Your task to perform on an android device: turn off translation in the chrome app Image 0: 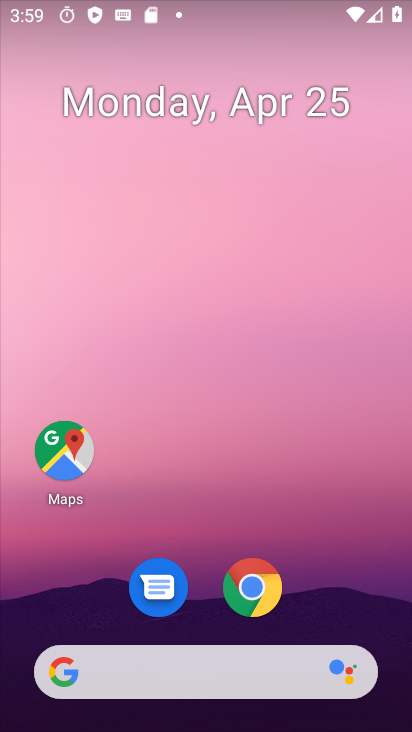
Step 0: drag from (370, 582) to (306, 150)
Your task to perform on an android device: turn off translation in the chrome app Image 1: 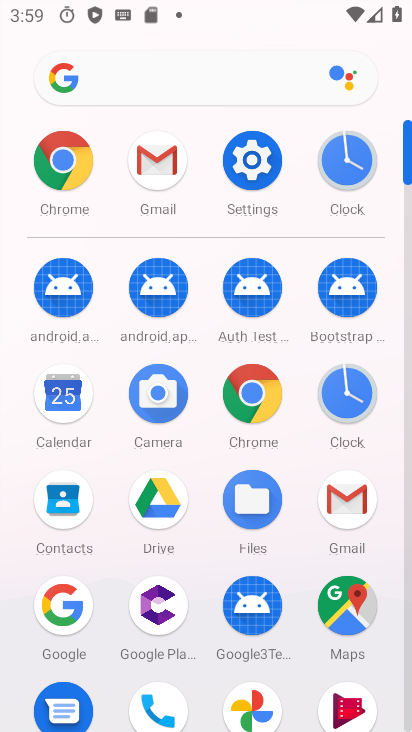
Step 1: click (262, 393)
Your task to perform on an android device: turn off translation in the chrome app Image 2: 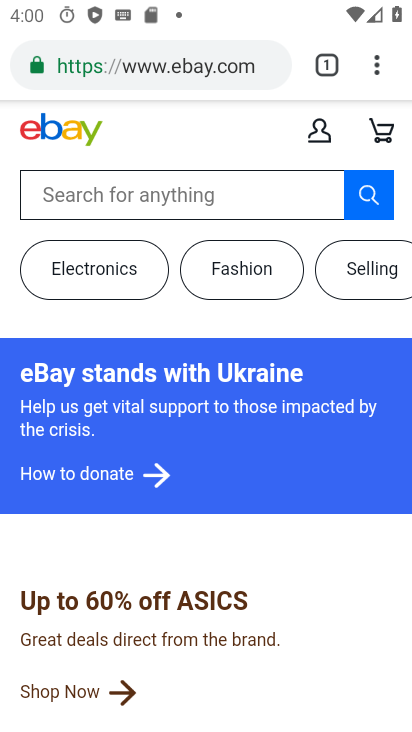
Step 2: press home button
Your task to perform on an android device: turn off translation in the chrome app Image 3: 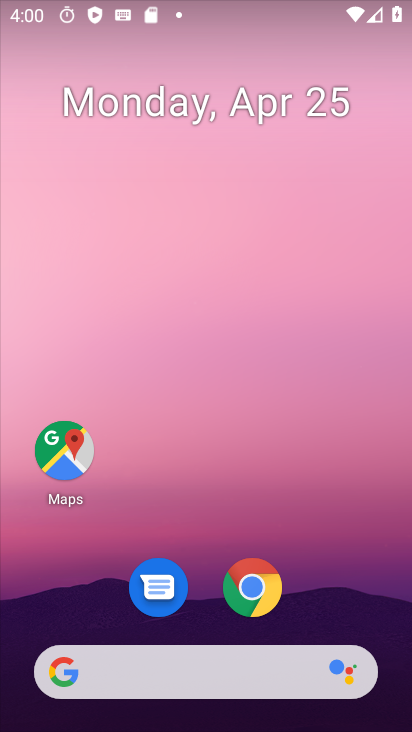
Step 3: drag from (366, 592) to (326, 192)
Your task to perform on an android device: turn off translation in the chrome app Image 4: 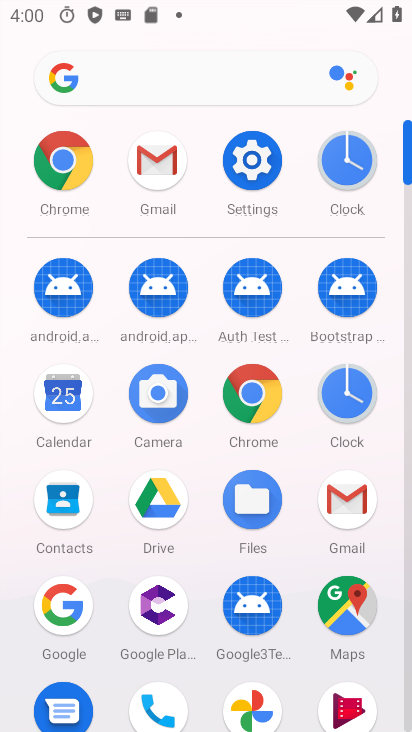
Step 4: click (248, 169)
Your task to perform on an android device: turn off translation in the chrome app Image 5: 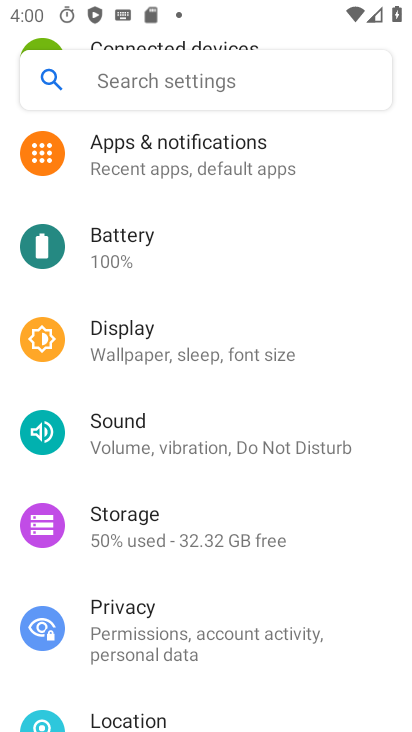
Step 5: click (207, 173)
Your task to perform on an android device: turn off translation in the chrome app Image 6: 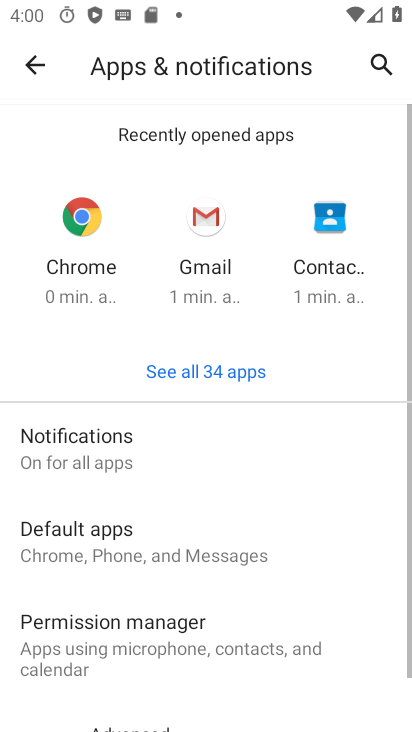
Step 6: click (81, 219)
Your task to perform on an android device: turn off translation in the chrome app Image 7: 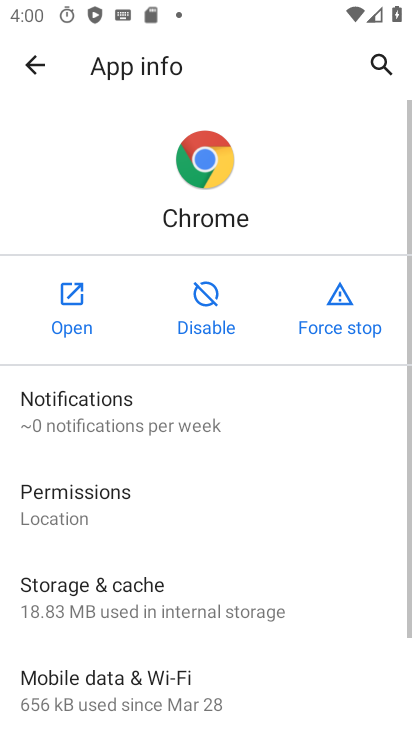
Step 7: drag from (302, 616) to (244, 417)
Your task to perform on an android device: turn off translation in the chrome app Image 8: 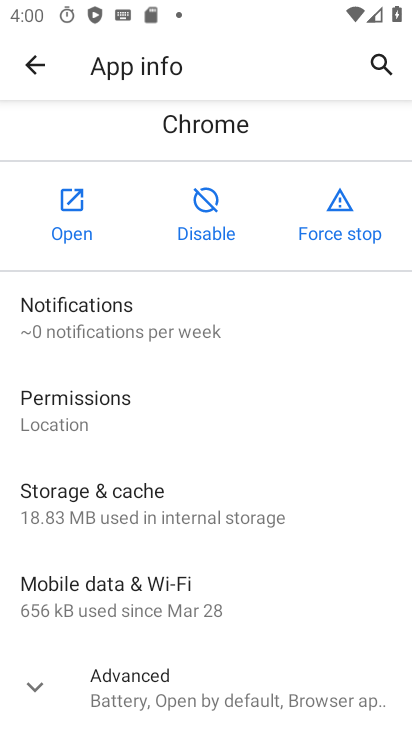
Step 8: click (81, 222)
Your task to perform on an android device: turn off translation in the chrome app Image 9: 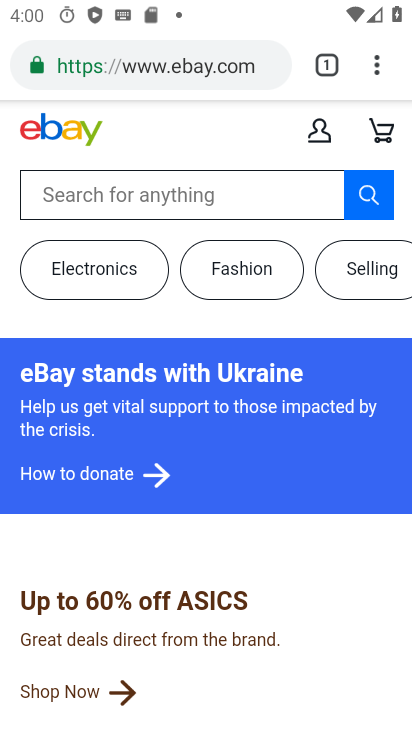
Step 9: drag from (377, 57) to (221, 334)
Your task to perform on an android device: turn off translation in the chrome app Image 10: 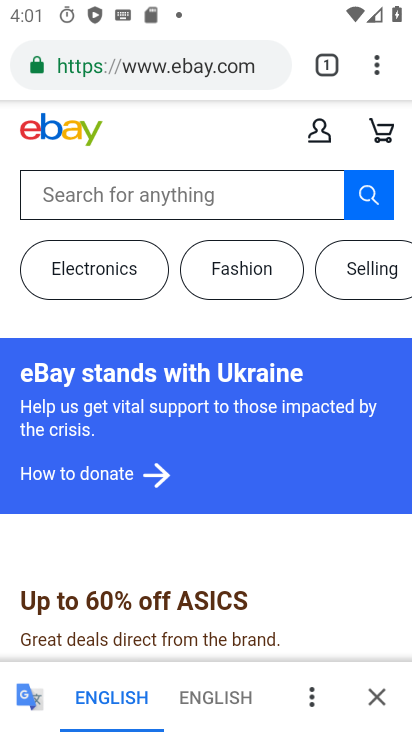
Step 10: drag from (383, 60) to (193, 627)
Your task to perform on an android device: turn off translation in the chrome app Image 11: 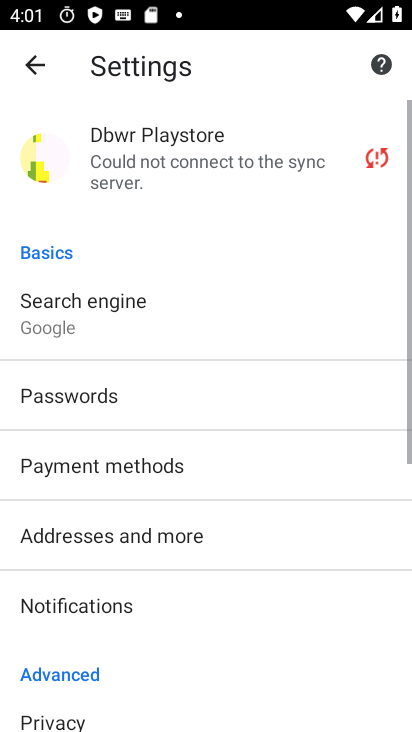
Step 11: drag from (216, 556) to (296, 20)
Your task to perform on an android device: turn off translation in the chrome app Image 12: 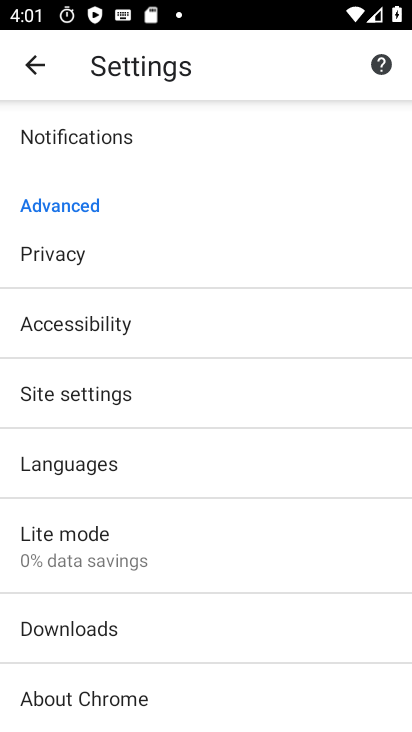
Step 12: click (115, 397)
Your task to perform on an android device: turn off translation in the chrome app Image 13: 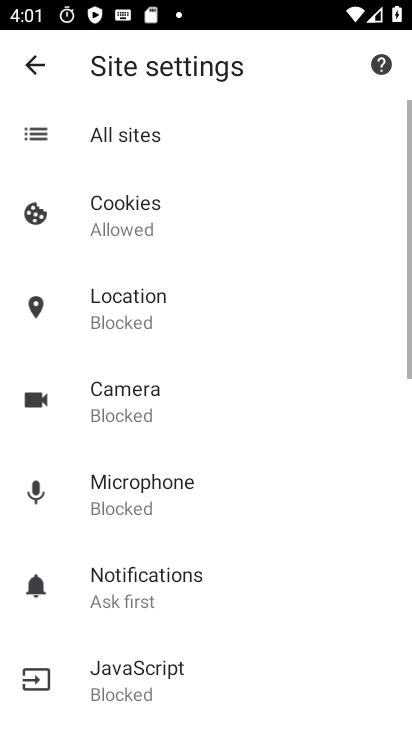
Step 13: drag from (290, 658) to (267, 121)
Your task to perform on an android device: turn off translation in the chrome app Image 14: 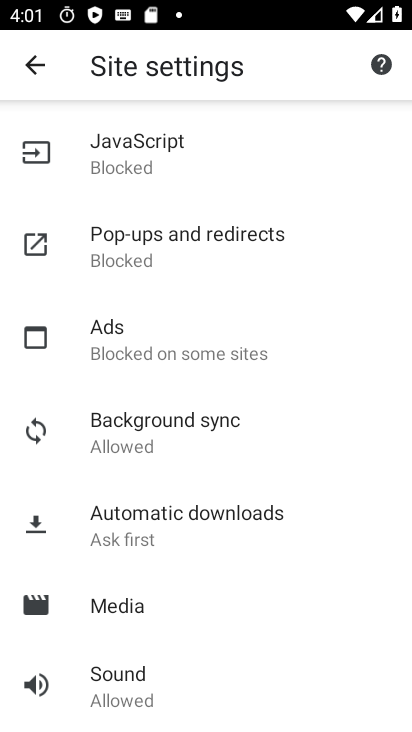
Step 14: click (18, 57)
Your task to perform on an android device: turn off translation in the chrome app Image 15: 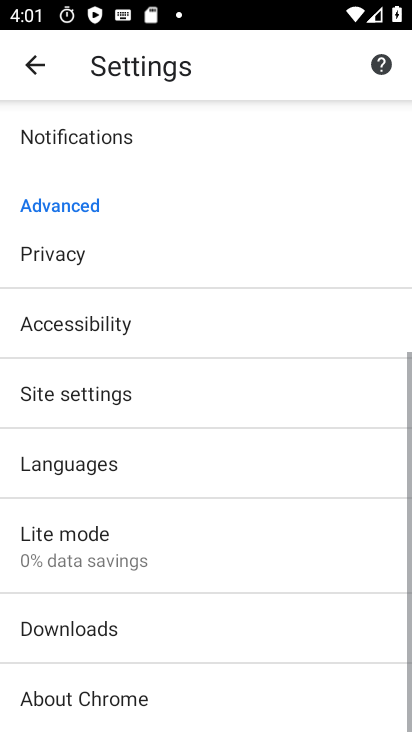
Step 15: drag from (172, 663) to (244, 195)
Your task to perform on an android device: turn off translation in the chrome app Image 16: 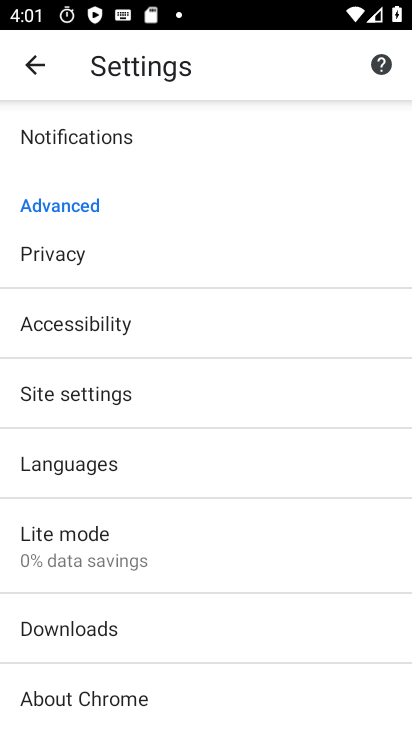
Step 16: click (65, 455)
Your task to perform on an android device: turn off translation in the chrome app Image 17: 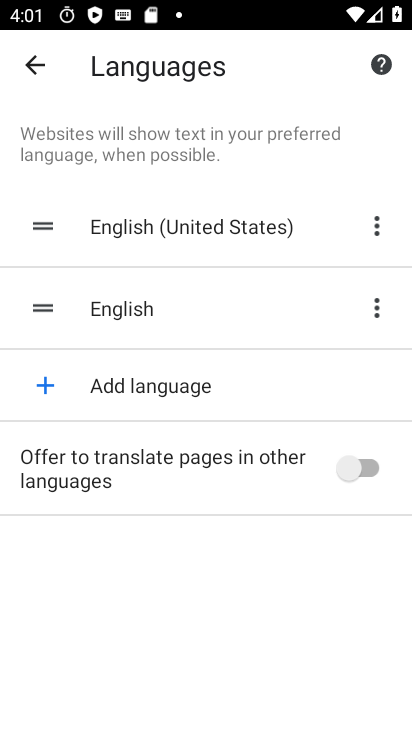
Step 17: task complete